Your task to perform on an android device: What's the weather? Image 0: 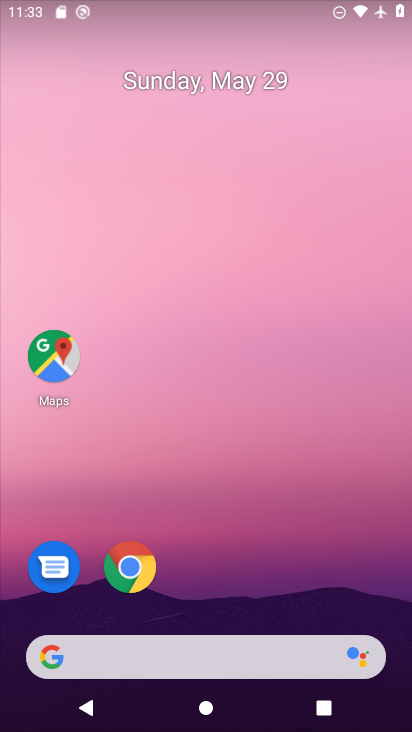
Step 0: click (129, 655)
Your task to perform on an android device: What's the weather? Image 1: 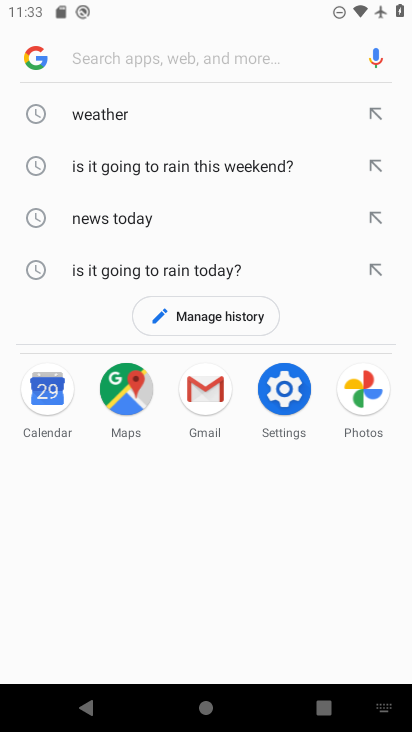
Step 1: click (93, 114)
Your task to perform on an android device: What's the weather? Image 2: 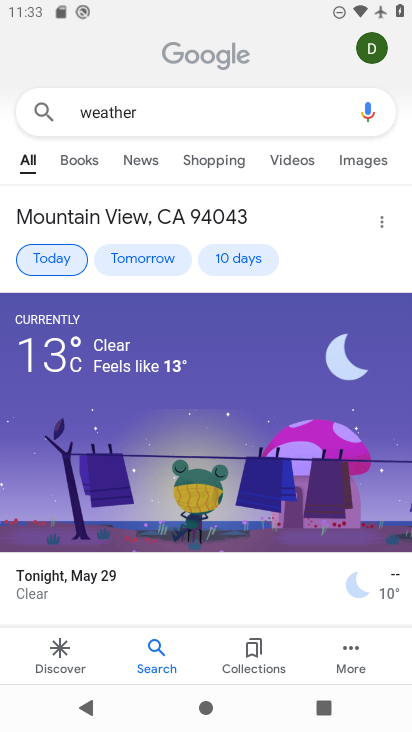
Step 2: task complete